Your task to perform on an android device: Find coffee shops on Maps Image 0: 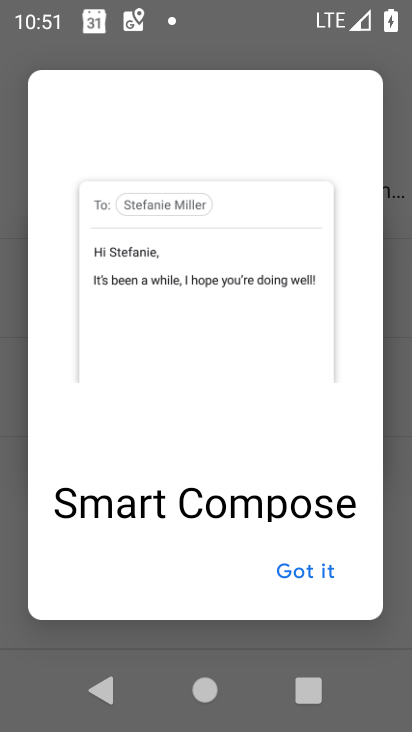
Step 0: press home button
Your task to perform on an android device: Find coffee shops on Maps Image 1: 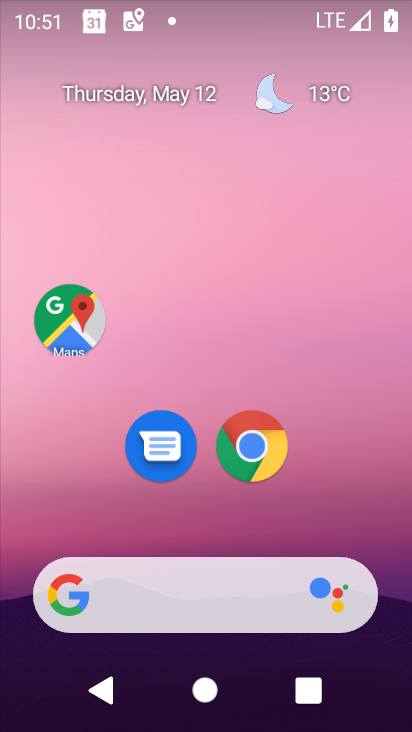
Step 1: drag from (283, 570) to (330, 19)
Your task to perform on an android device: Find coffee shops on Maps Image 2: 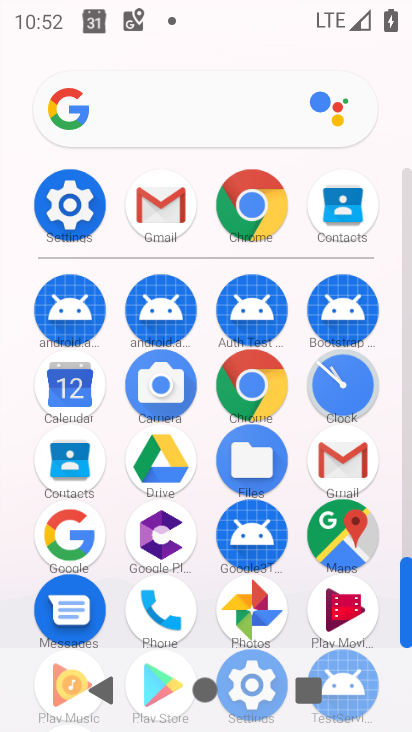
Step 2: click (347, 527)
Your task to perform on an android device: Find coffee shops on Maps Image 3: 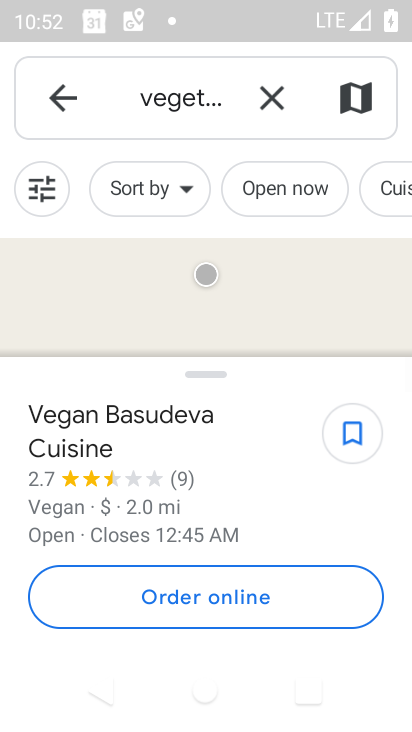
Step 3: click (271, 93)
Your task to perform on an android device: Find coffee shops on Maps Image 4: 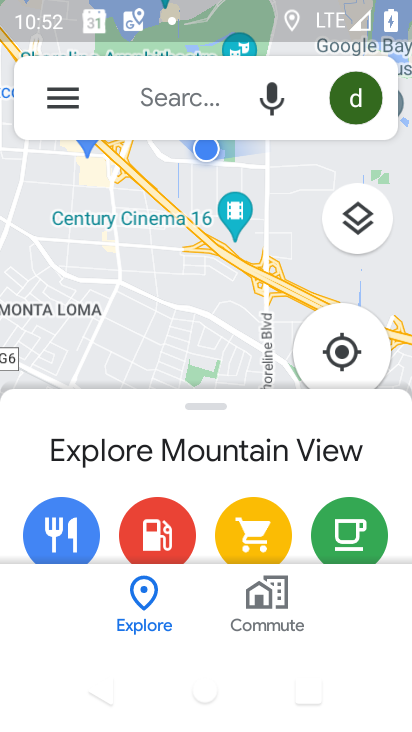
Step 4: click (179, 112)
Your task to perform on an android device: Find coffee shops on Maps Image 5: 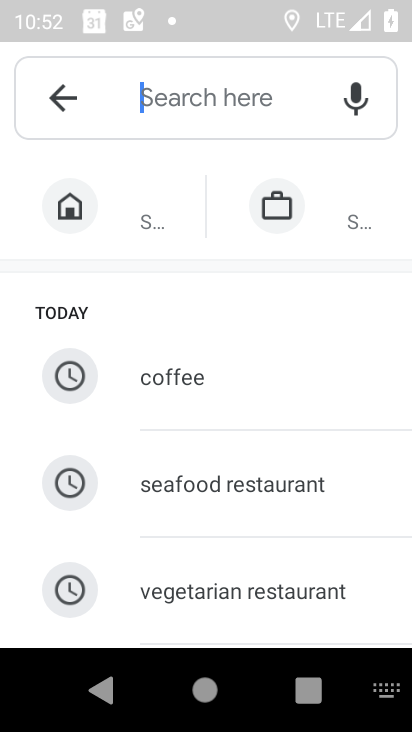
Step 5: type "coffee shops"
Your task to perform on an android device: Find coffee shops on Maps Image 6: 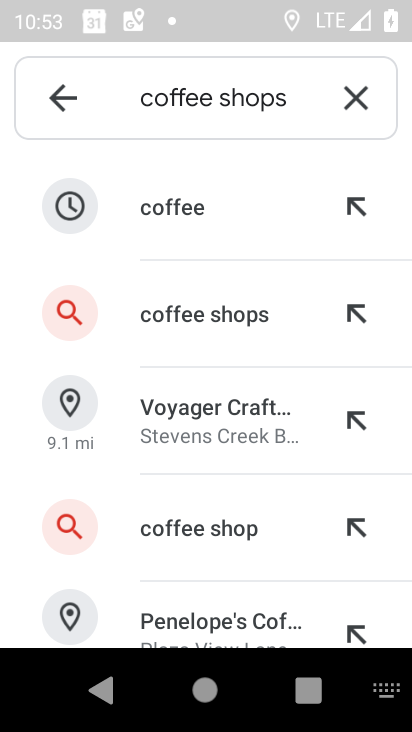
Step 6: click (272, 356)
Your task to perform on an android device: Find coffee shops on Maps Image 7: 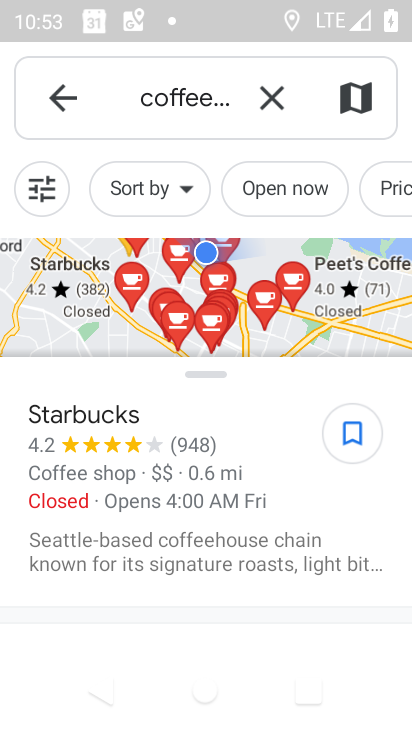
Step 7: task complete